Your task to perform on an android device: find photos in the google photos app Image 0: 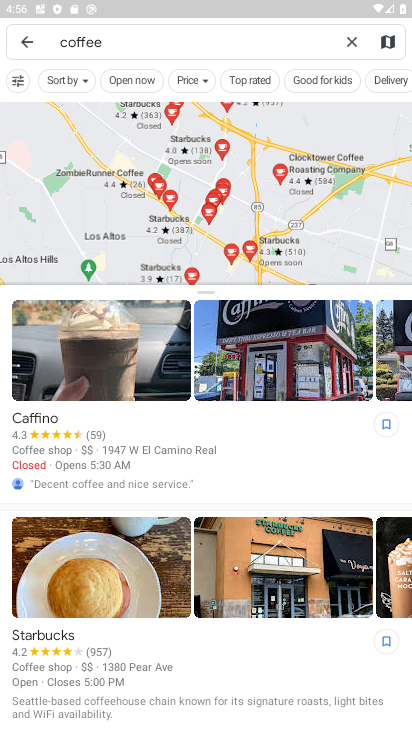
Step 0: press home button
Your task to perform on an android device: find photos in the google photos app Image 1: 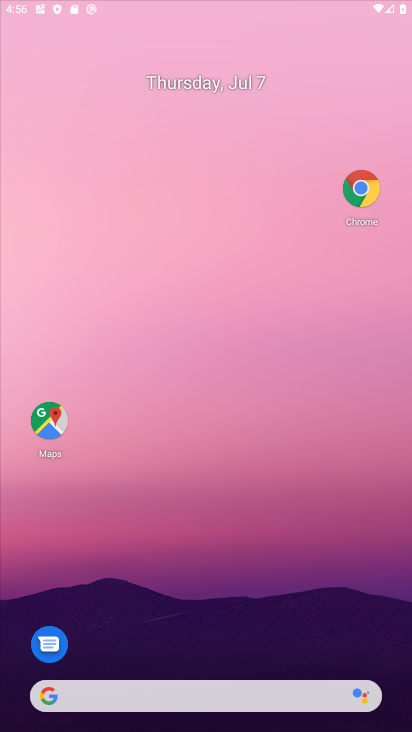
Step 1: drag from (316, 574) to (314, 19)
Your task to perform on an android device: find photos in the google photos app Image 2: 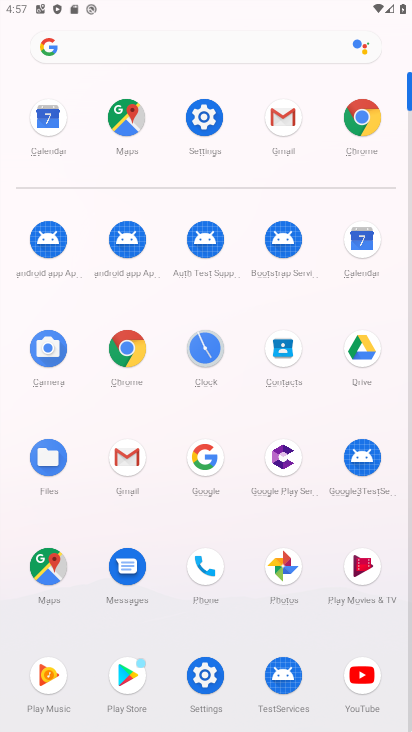
Step 2: click (276, 571)
Your task to perform on an android device: find photos in the google photos app Image 3: 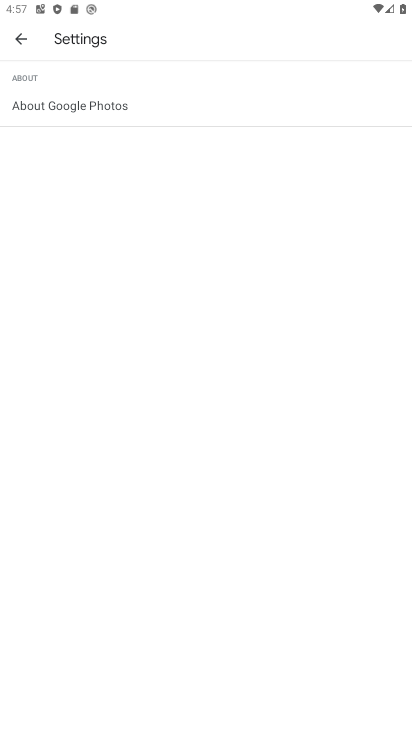
Step 3: click (20, 53)
Your task to perform on an android device: find photos in the google photos app Image 4: 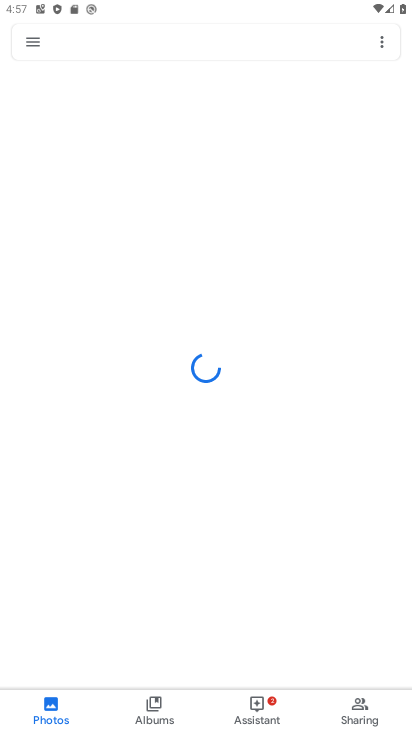
Step 4: task complete